Your task to perform on an android device: change text size in settings app Image 0: 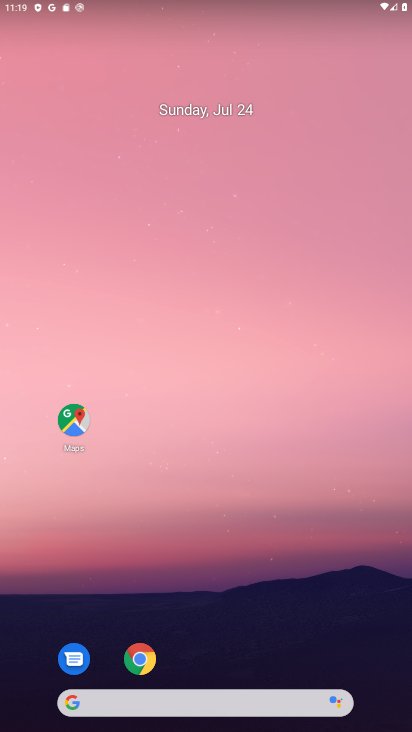
Step 0: drag from (208, 593) to (250, 60)
Your task to perform on an android device: change text size in settings app Image 1: 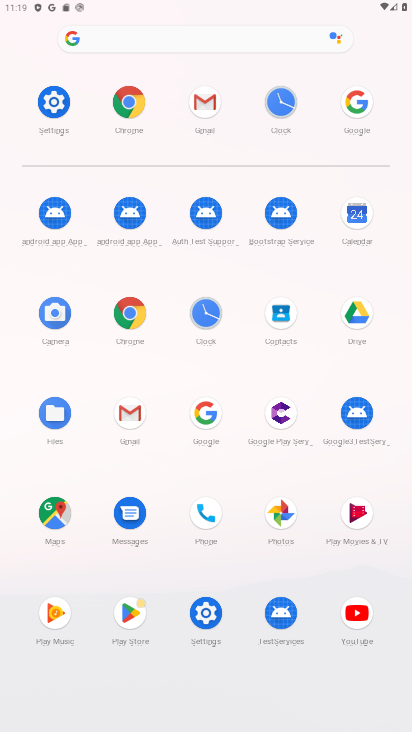
Step 1: click (136, 94)
Your task to perform on an android device: change text size in settings app Image 2: 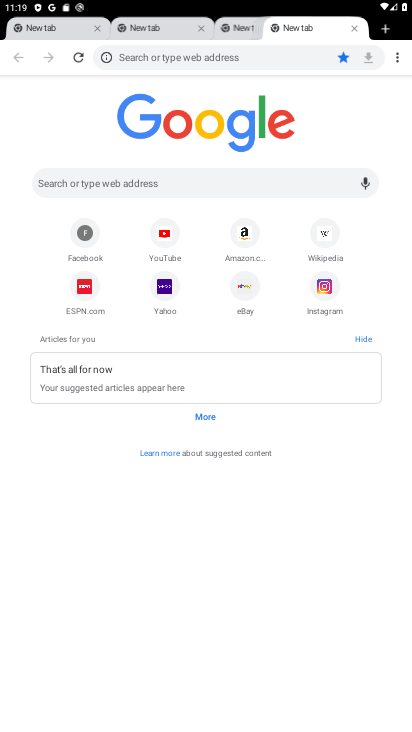
Step 2: press home button
Your task to perform on an android device: change text size in settings app Image 3: 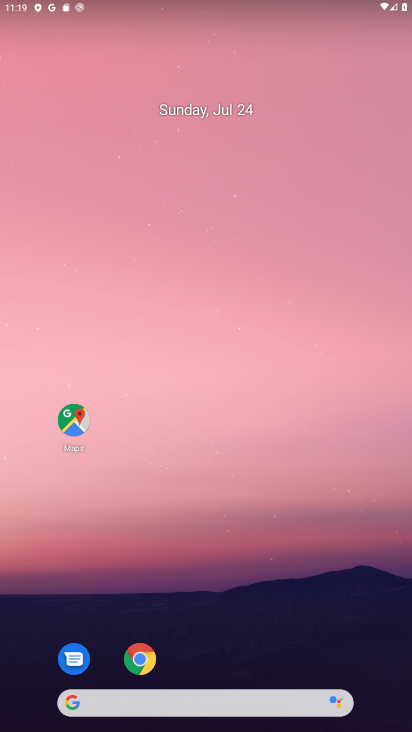
Step 3: drag from (234, 638) to (241, 468)
Your task to perform on an android device: change text size in settings app Image 4: 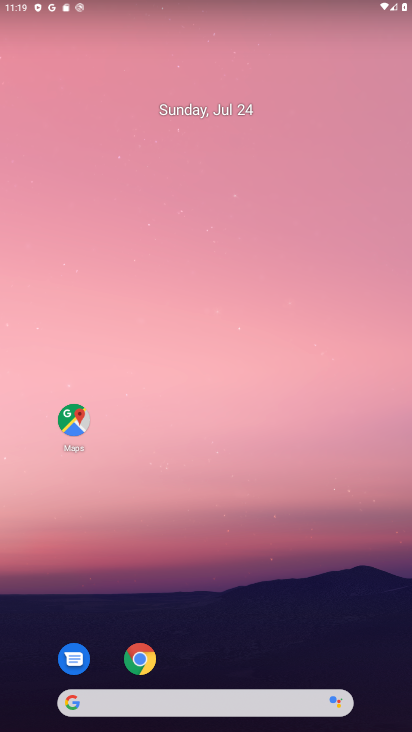
Step 4: drag from (284, 647) to (315, 47)
Your task to perform on an android device: change text size in settings app Image 5: 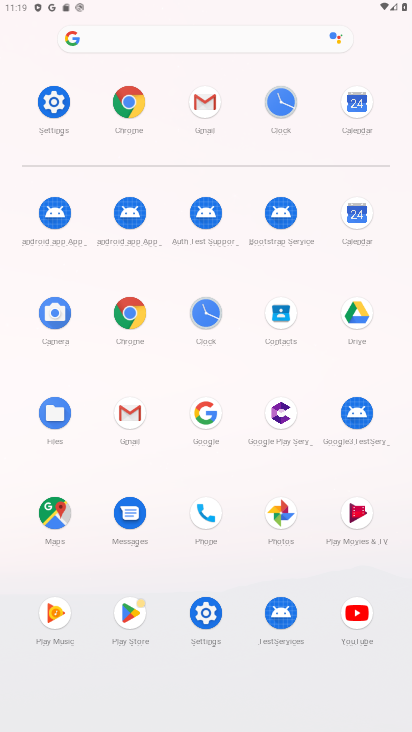
Step 5: click (54, 80)
Your task to perform on an android device: change text size in settings app Image 6: 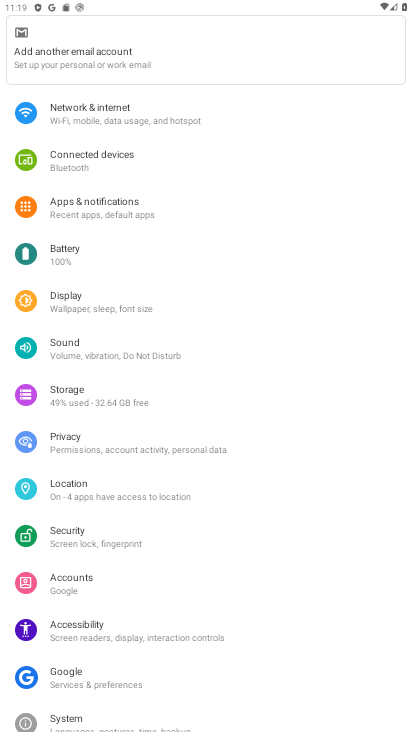
Step 6: drag from (198, 631) to (328, 290)
Your task to perform on an android device: change text size in settings app Image 7: 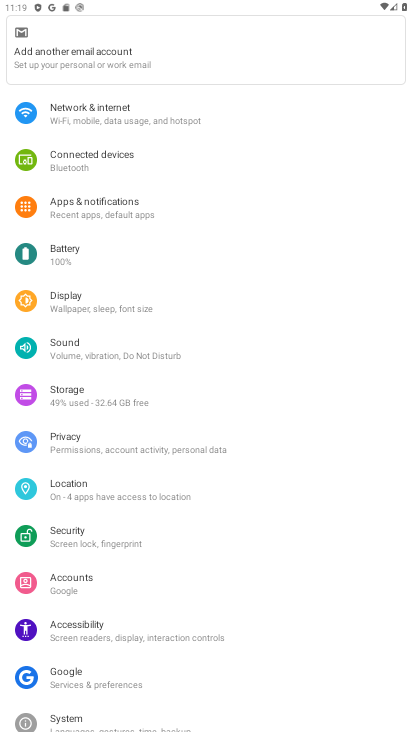
Step 7: click (108, 413)
Your task to perform on an android device: change text size in settings app Image 8: 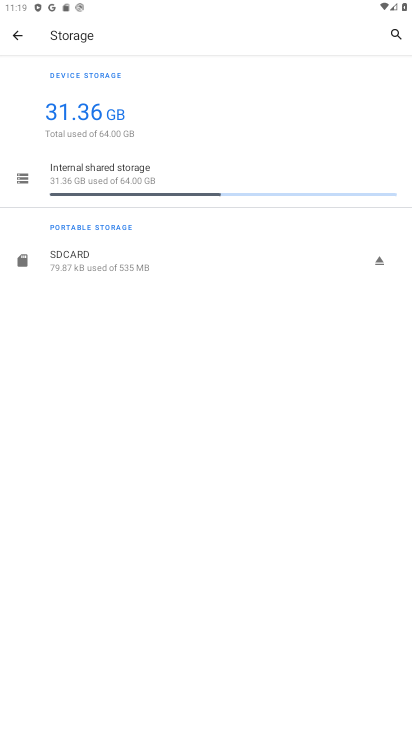
Step 8: click (21, 6)
Your task to perform on an android device: change text size in settings app Image 9: 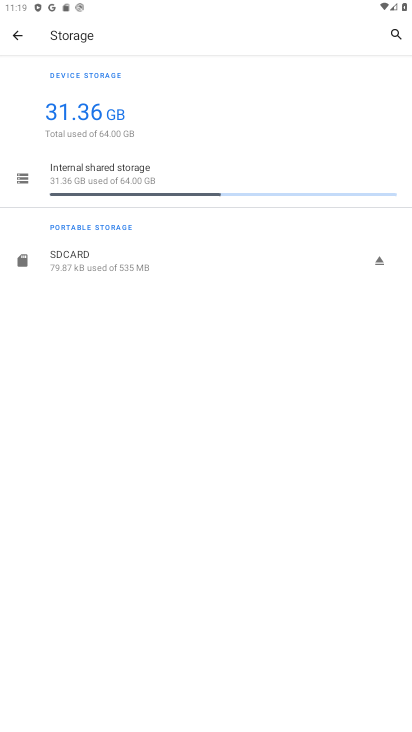
Step 9: click (25, 52)
Your task to perform on an android device: change text size in settings app Image 10: 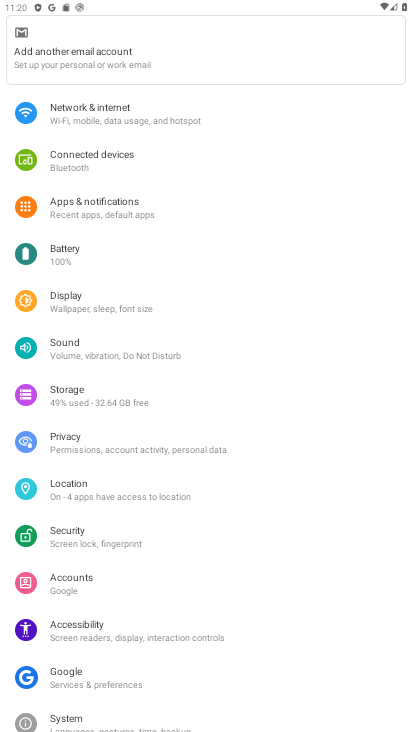
Step 10: click (60, 723)
Your task to perform on an android device: change text size in settings app Image 11: 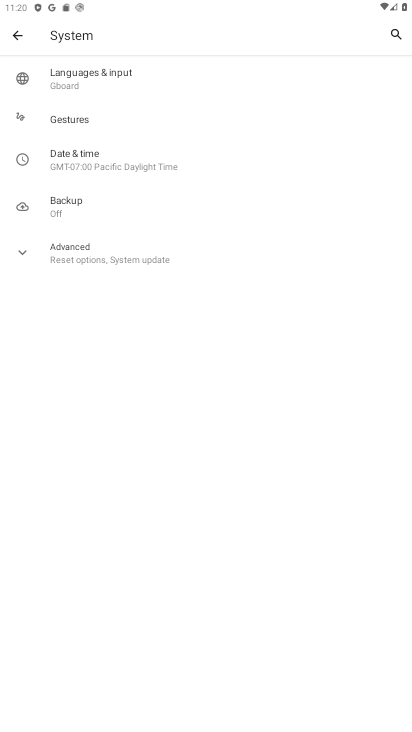
Step 11: click (26, 24)
Your task to perform on an android device: change text size in settings app Image 12: 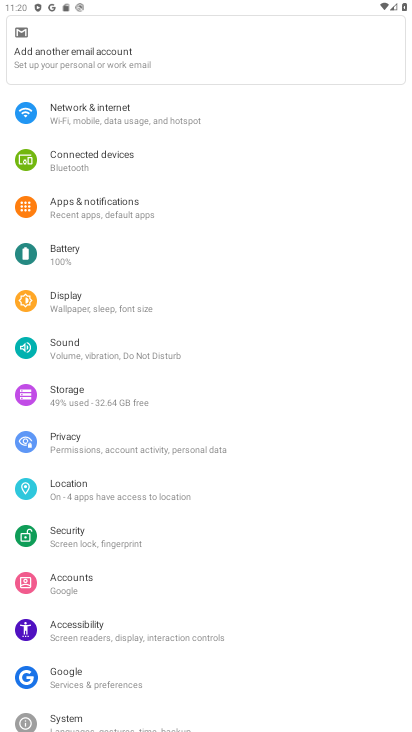
Step 12: click (143, 631)
Your task to perform on an android device: change text size in settings app Image 13: 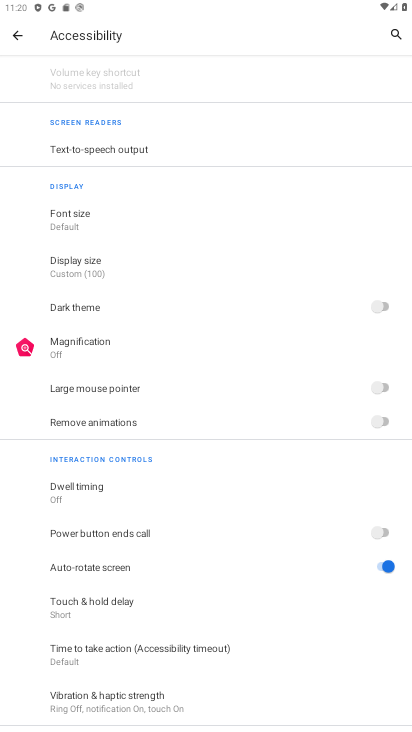
Step 13: click (76, 220)
Your task to perform on an android device: change text size in settings app Image 14: 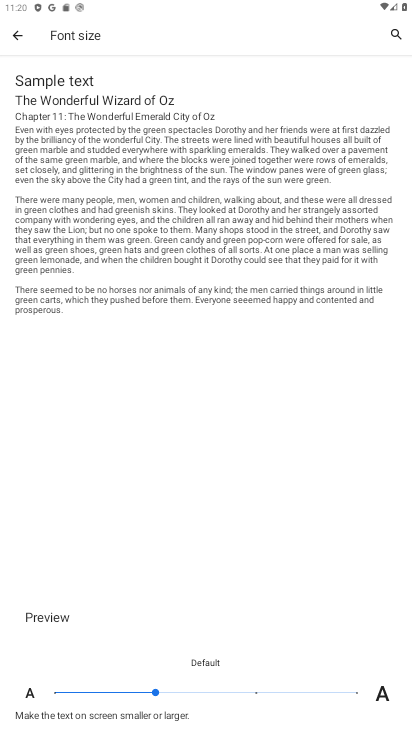
Step 14: click (267, 680)
Your task to perform on an android device: change text size in settings app Image 15: 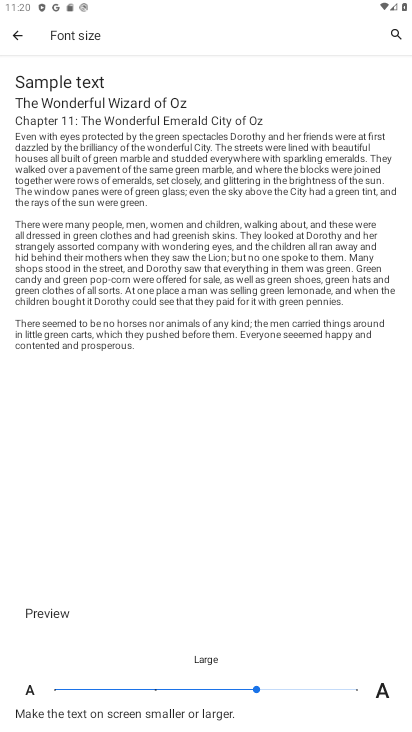
Step 15: task complete